Your task to perform on an android device: Open Chrome and go to the settings page Image 0: 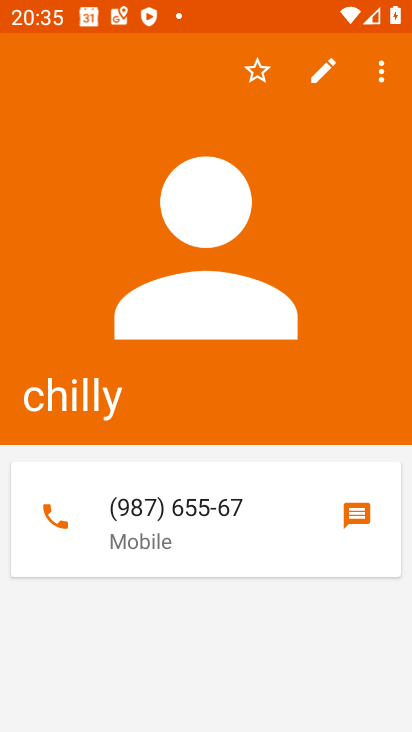
Step 0: press home button
Your task to perform on an android device: Open Chrome and go to the settings page Image 1: 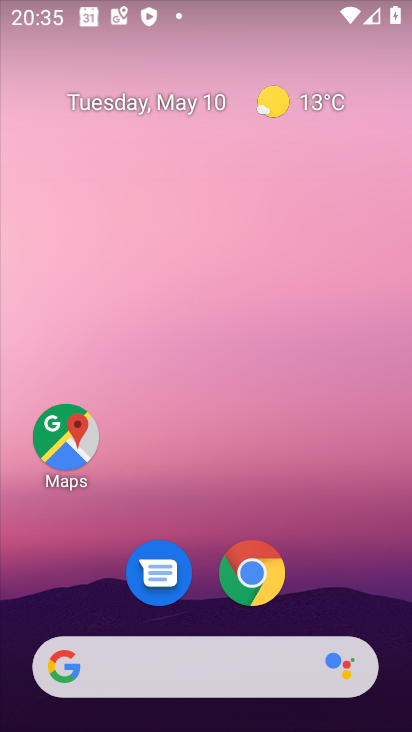
Step 1: click (263, 584)
Your task to perform on an android device: Open Chrome and go to the settings page Image 2: 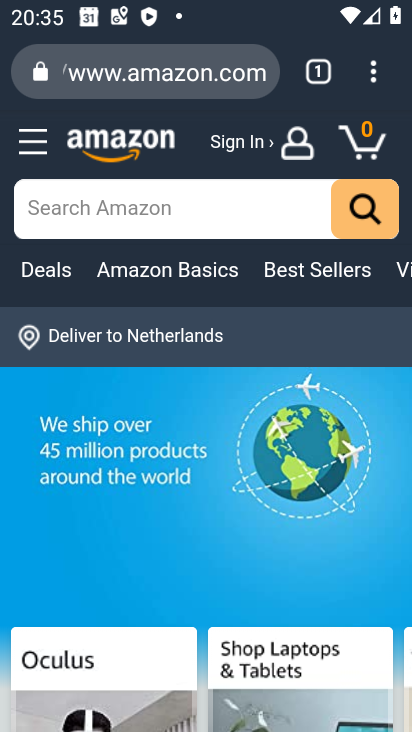
Step 2: task complete